Your task to perform on an android device: toggle notification dots Image 0: 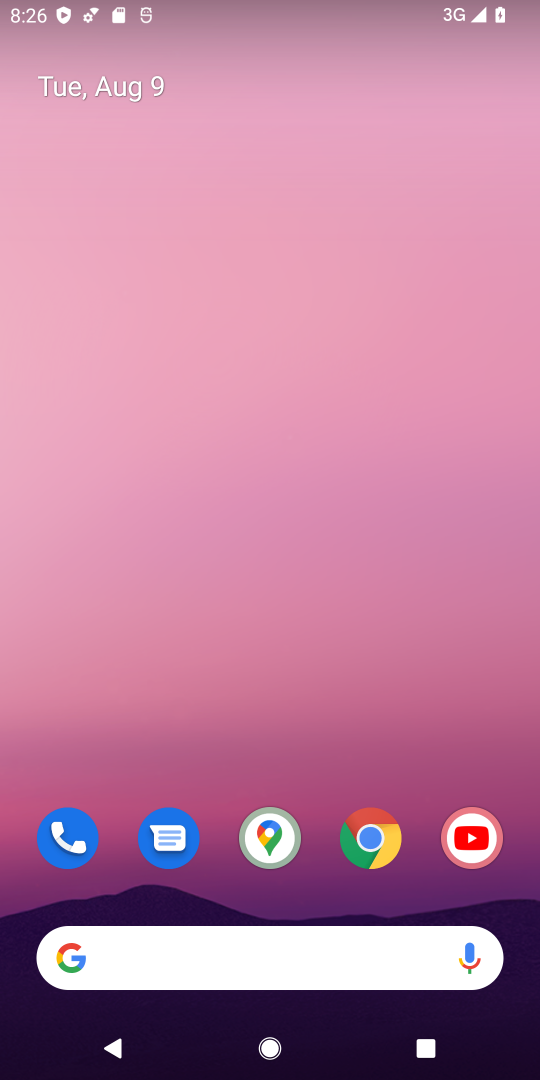
Step 0: drag from (263, 948) to (301, 314)
Your task to perform on an android device: toggle notification dots Image 1: 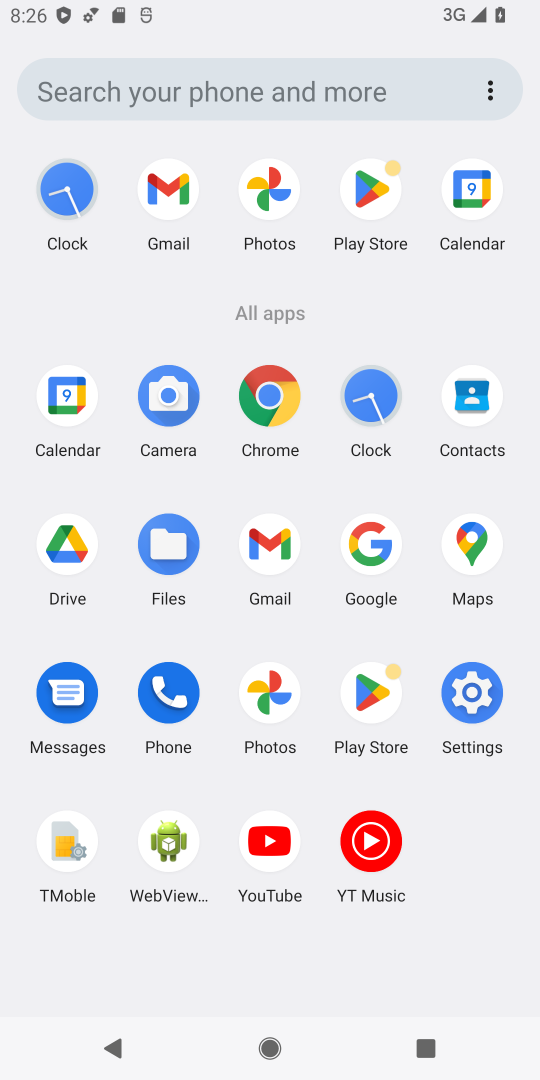
Step 1: click (485, 696)
Your task to perform on an android device: toggle notification dots Image 2: 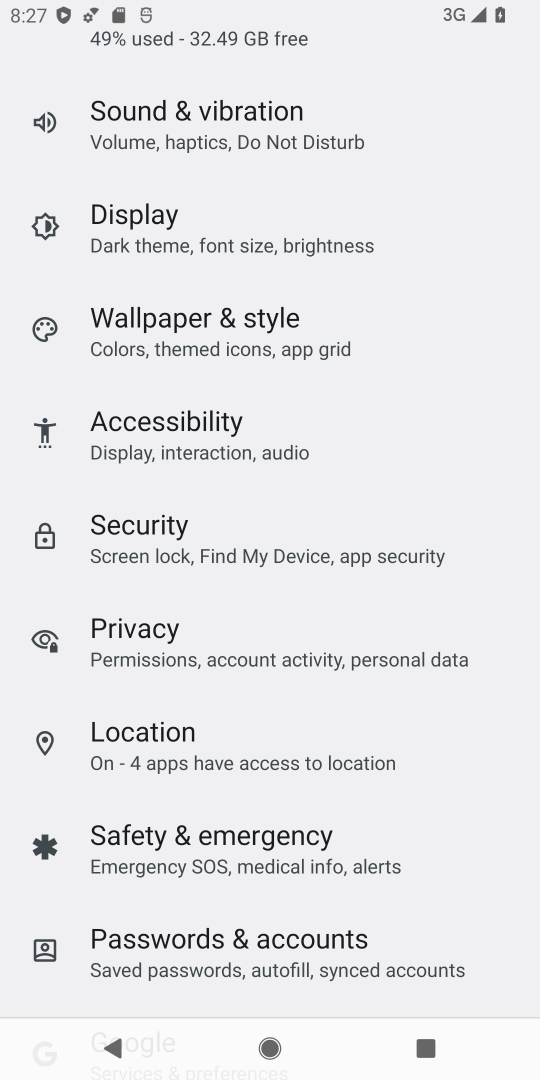
Step 2: drag from (236, 393) to (217, 931)
Your task to perform on an android device: toggle notification dots Image 3: 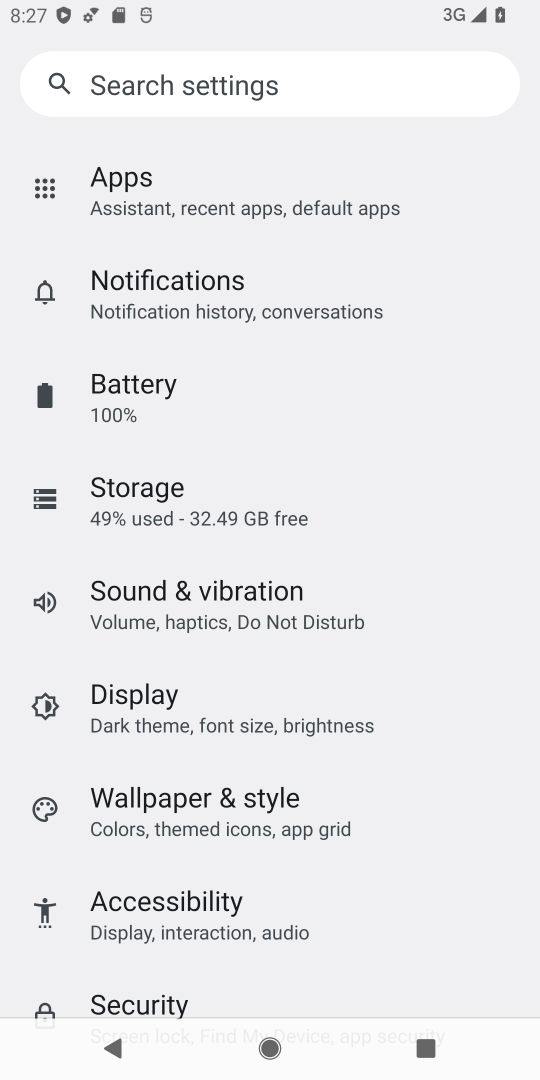
Step 3: click (193, 307)
Your task to perform on an android device: toggle notification dots Image 4: 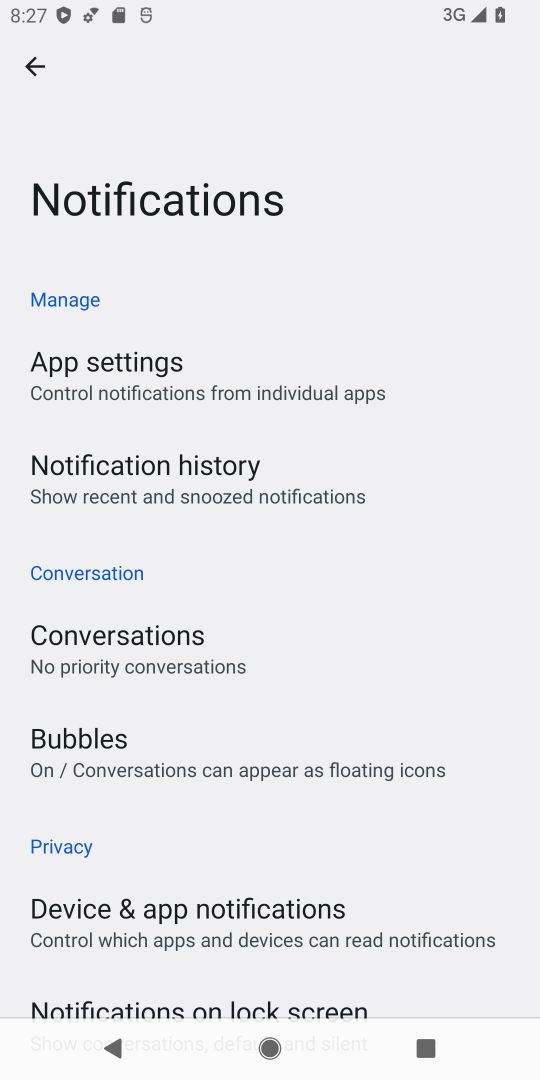
Step 4: drag from (231, 948) to (272, 389)
Your task to perform on an android device: toggle notification dots Image 5: 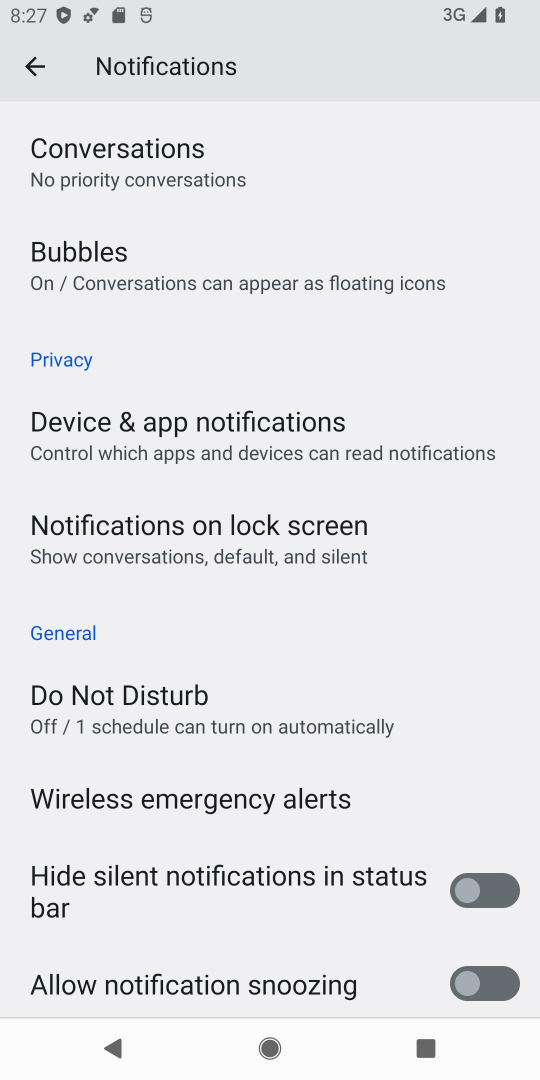
Step 5: drag from (253, 878) to (293, 470)
Your task to perform on an android device: toggle notification dots Image 6: 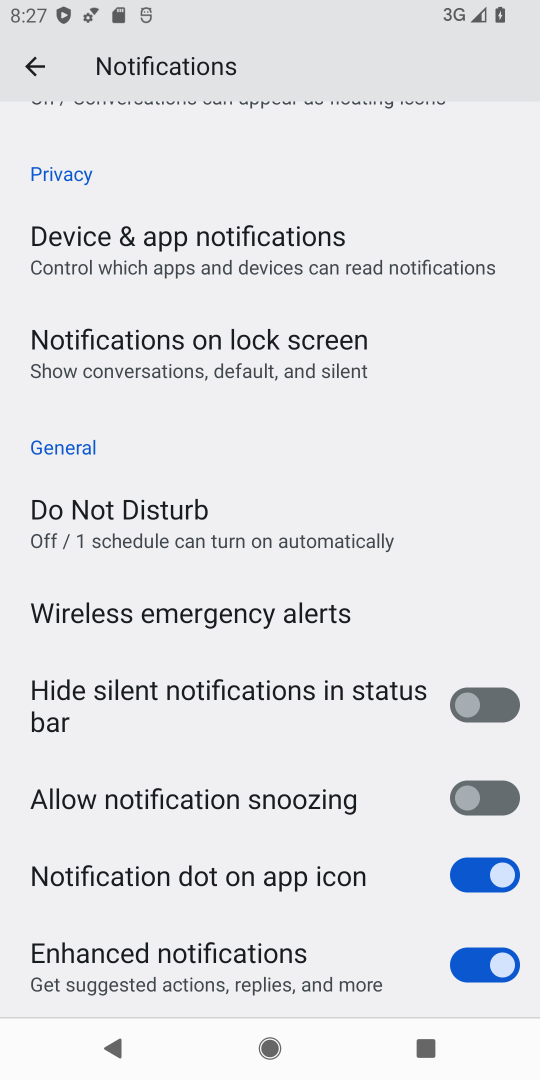
Step 6: drag from (364, 964) to (373, 637)
Your task to perform on an android device: toggle notification dots Image 7: 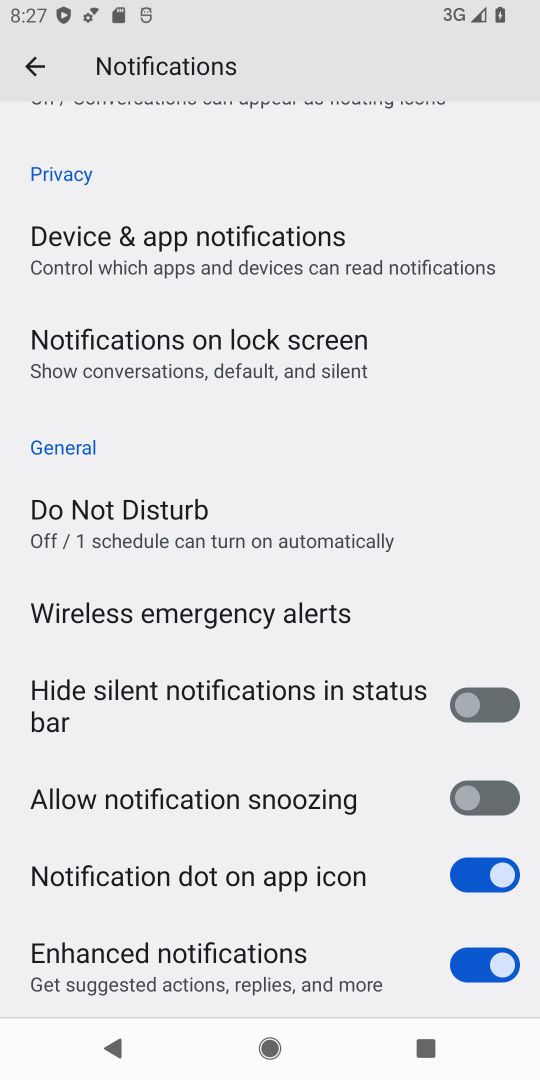
Step 7: click (471, 889)
Your task to perform on an android device: toggle notification dots Image 8: 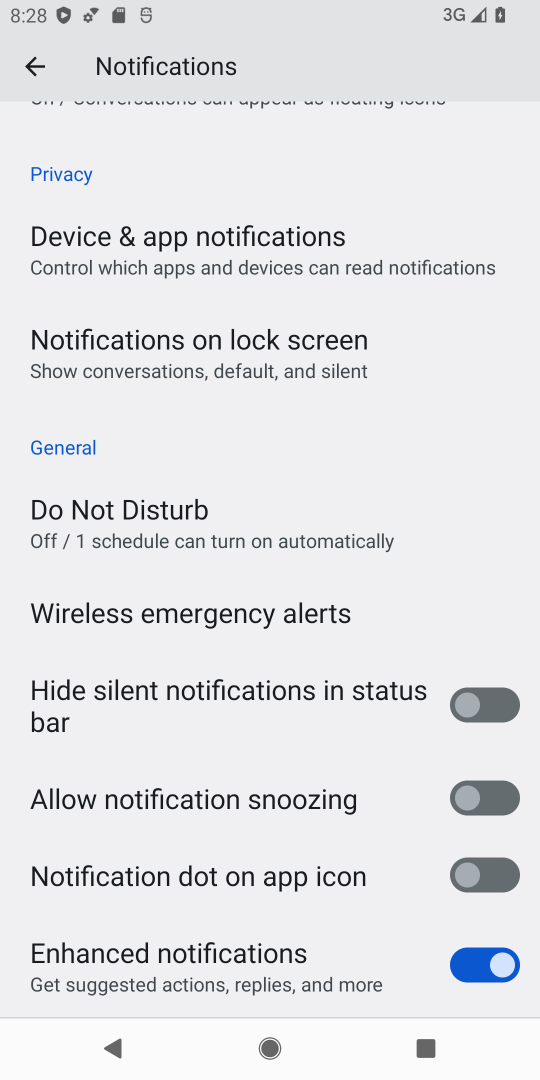
Step 8: task complete